Your task to perform on an android device: search for starred emails in the gmail app Image 0: 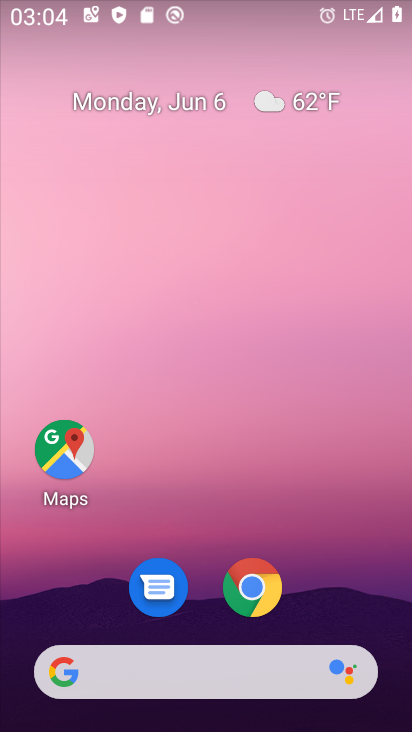
Step 0: drag from (335, 588) to (281, 29)
Your task to perform on an android device: search for starred emails in the gmail app Image 1: 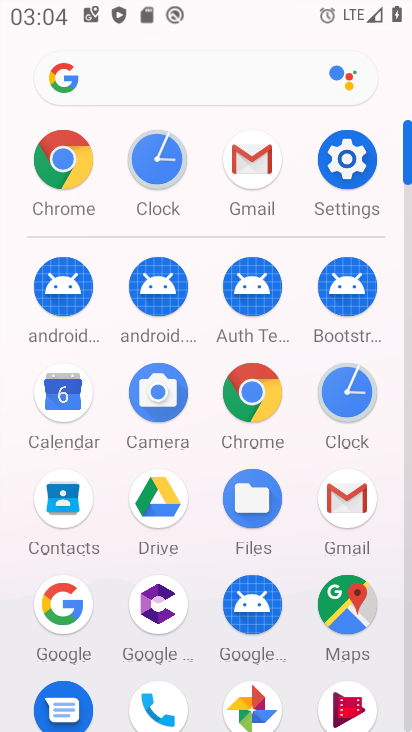
Step 1: drag from (11, 656) to (11, 268)
Your task to perform on an android device: search for starred emails in the gmail app Image 2: 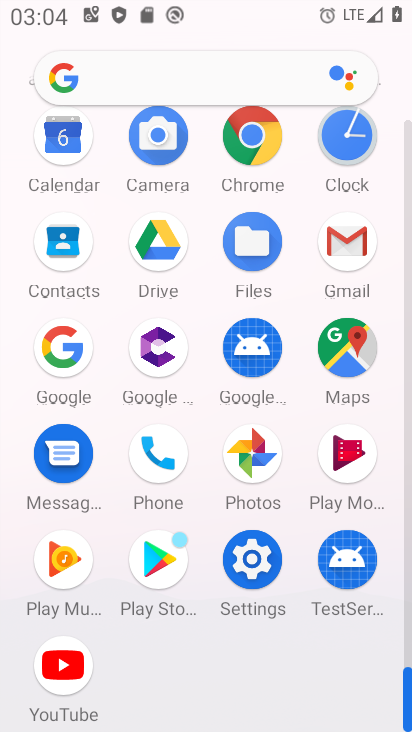
Step 2: click (345, 235)
Your task to perform on an android device: search for starred emails in the gmail app Image 3: 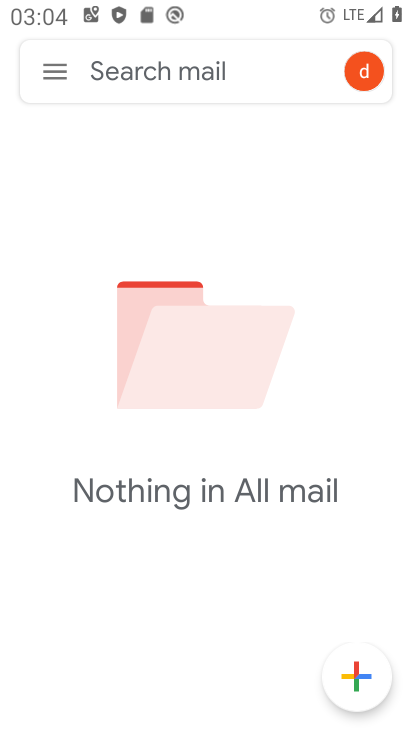
Step 3: click (55, 64)
Your task to perform on an android device: search for starred emails in the gmail app Image 4: 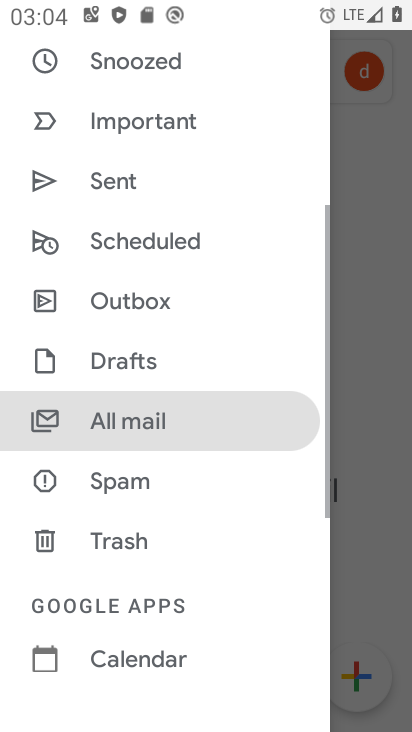
Step 4: drag from (163, 95) to (209, 531)
Your task to perform on an android device: search for starred emails in the gmail app Image 5: 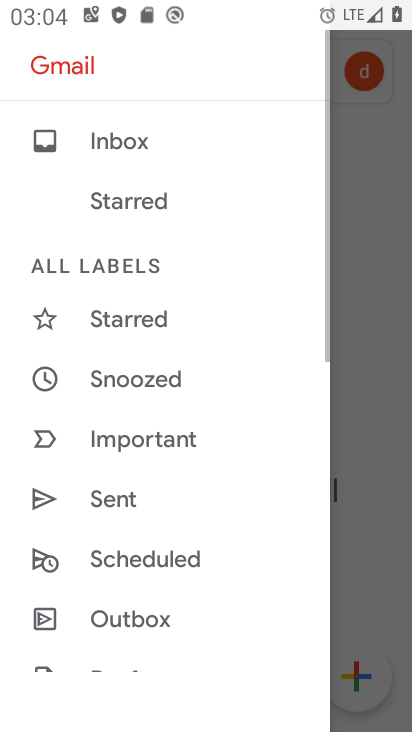
Step 5: click (149, 309)
Your task to perform on an android device: search for starred emails in the gmail app Image 6: 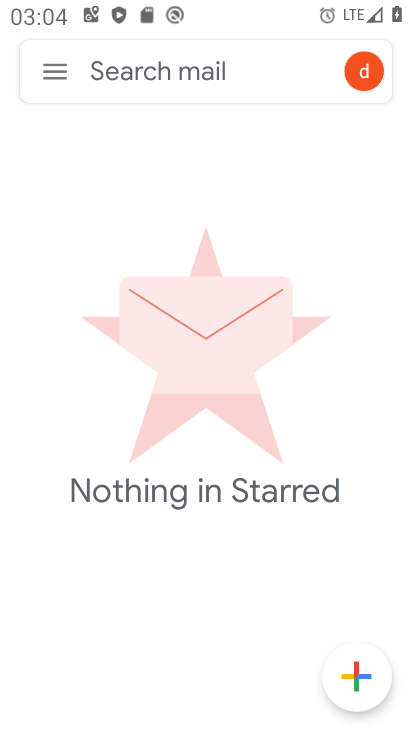
Step 6: task complete